Your task to perform on an android device: turn off airplane mode Image 0: 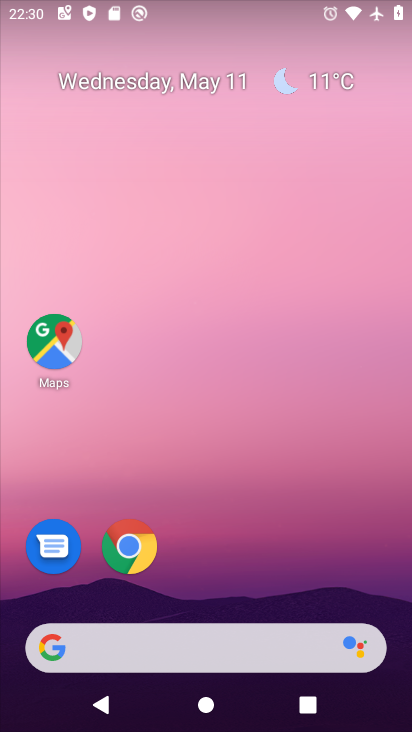
Step 0: drag from (385, 591) to (313, 142)
Your task to perform on an android device: turn off airplane mode Image 1: 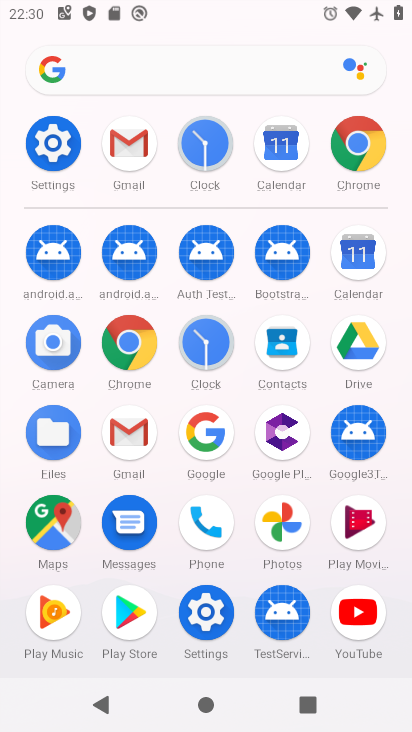
Step 1: click (205, 611)
Your task to perform on an android device: turn off airplane mode Image 2: 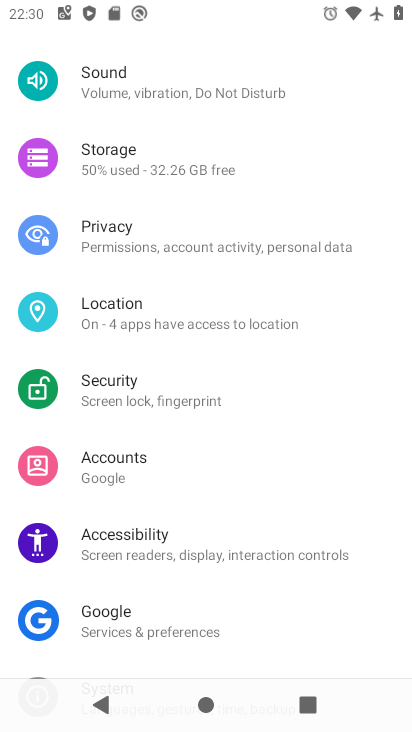
Step 2: drag from (290, 208) to (349, 488)
Your task to perform on an android device: turn off airplane mode Image 3: 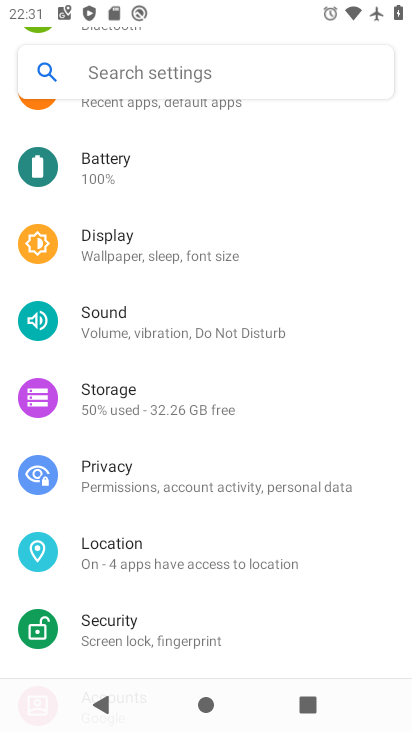
Step 3: drag from (343, 201) to (329, 426)
Your task to perform on an android device: turn off airplane mode Image 4: 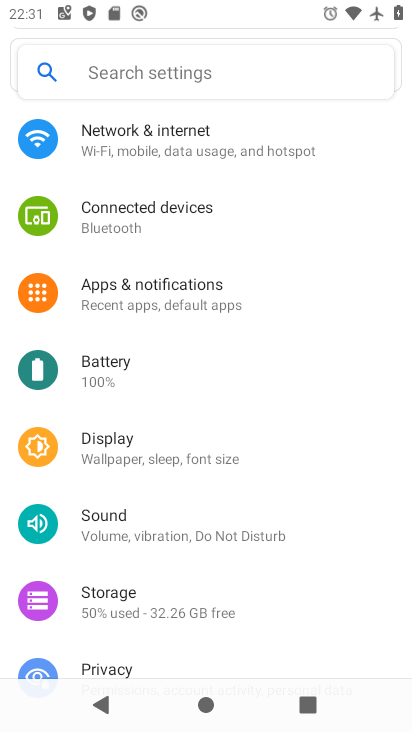
Step 4: click (112, 128)
Your task to perform on an android device: turn off airplane mode Image 5: 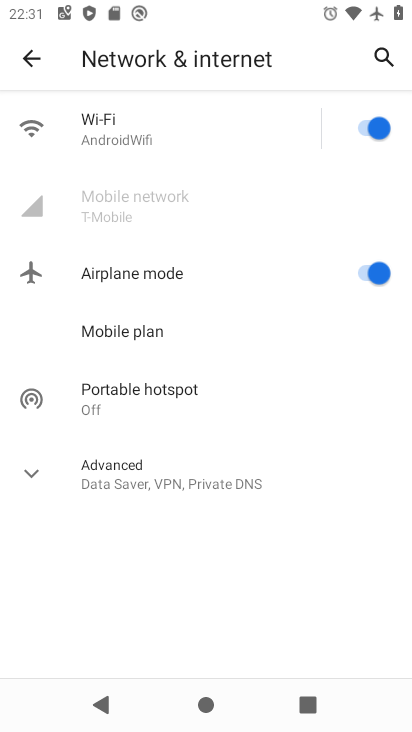
Step 5: click (362, 273)
Your task to perform on an android device: turn off airplane mode Image 6: 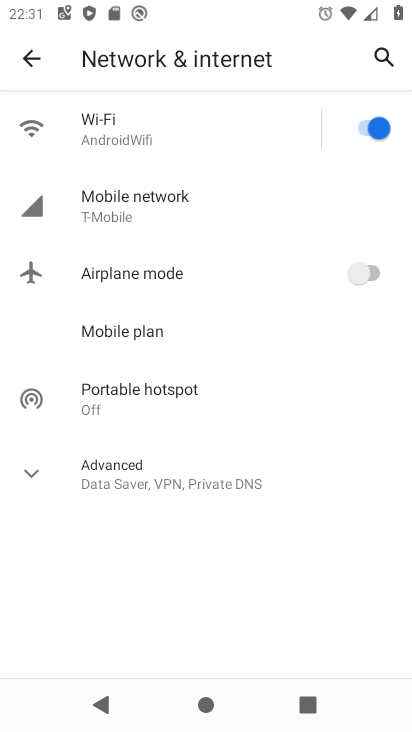
Step 6: task complete